Your task to perform on an android device: Go to Maps Image 0: 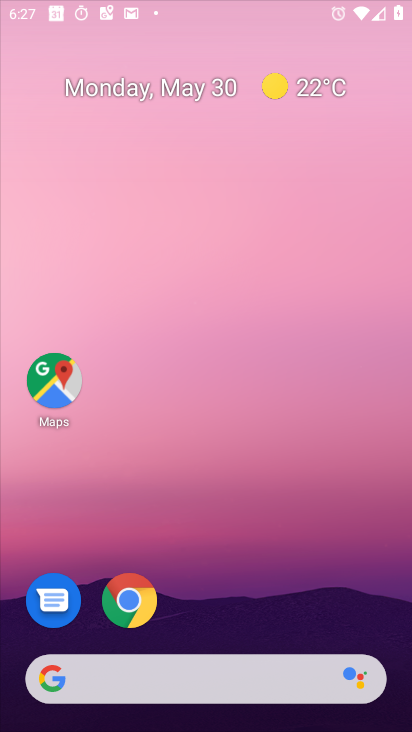
Step 0: press home button
Your task to perform on an android device: Go to Maps Image 1: 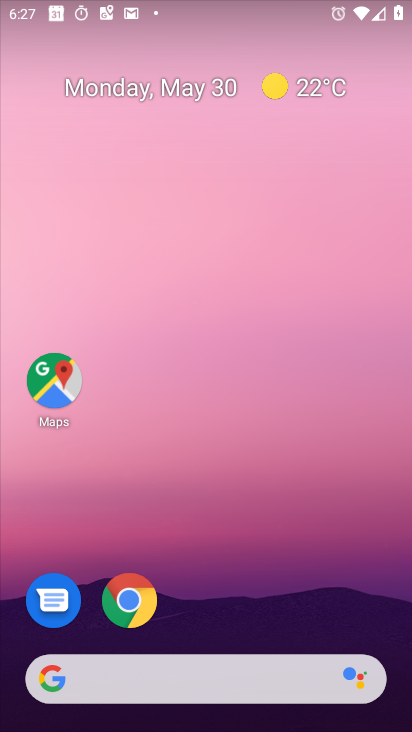
Step 1: click (56, 404)
Your task to perform on an android device: Go to Maps Image 2: 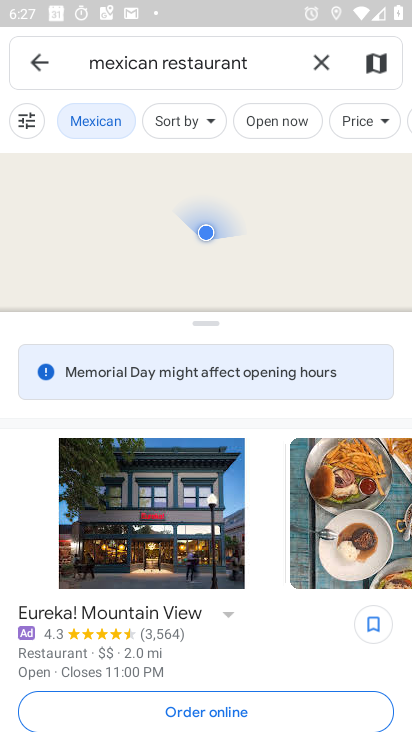
Step 2: click (328, 67)
Your task to perform on an android device: Go to Maps Image 3: 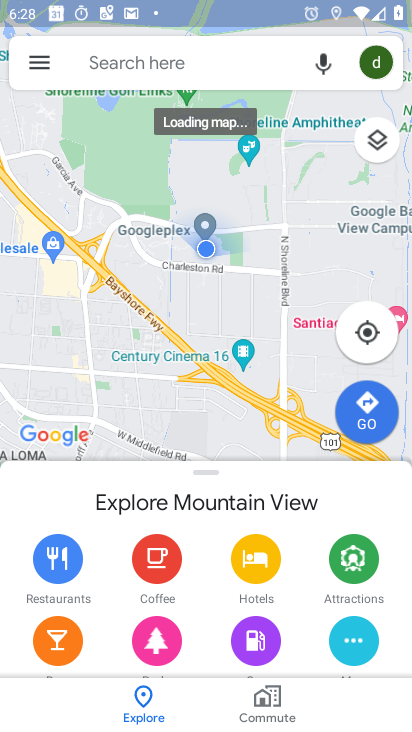
Step 3: task complete